Your task to perform on an android device: search for starred emails in the gmail app Image 0: 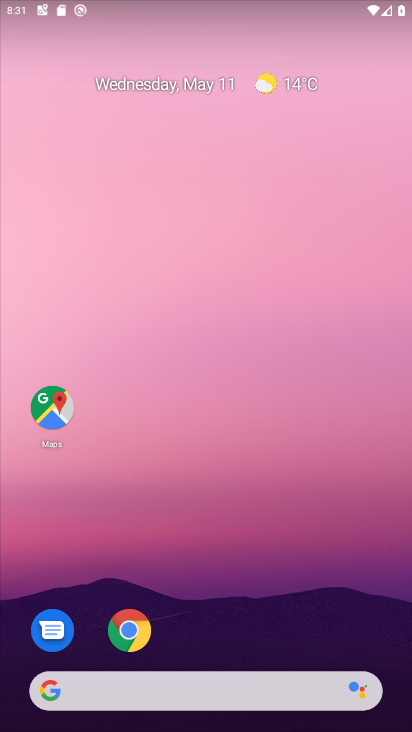
Step 0: press home button
Your task to perform on an android device: search for starred emails in the gmail app Image 1: 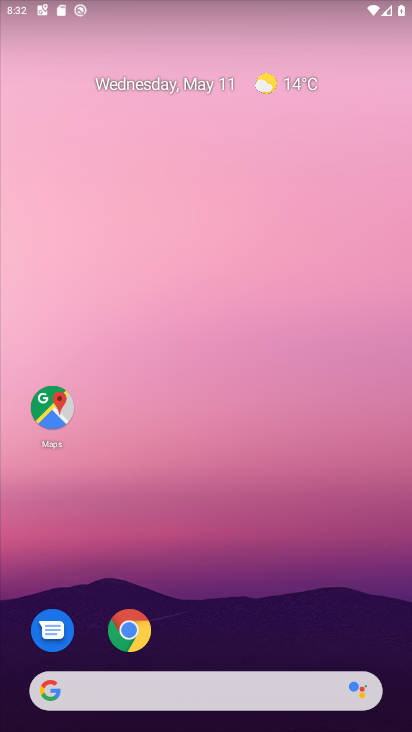
Step 1: drag from (0, 644) to (211, 200)
Your task to perform on an android device: search for starred emails in the gmail app Image 2: 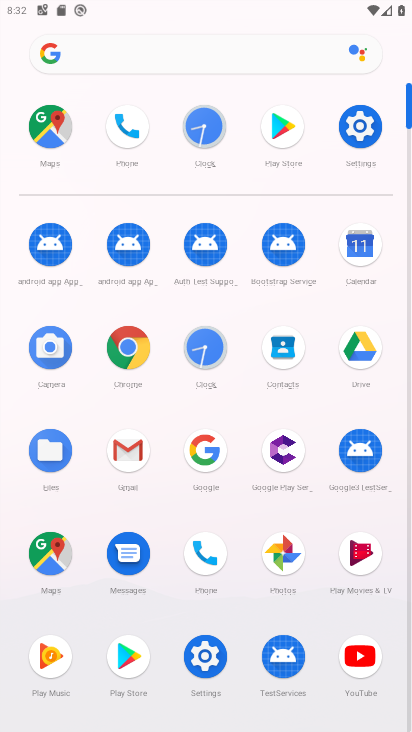
Step 2: click (123, 448)
Your task to perform on an android device: search for starred emails in the gmail app Image 3: 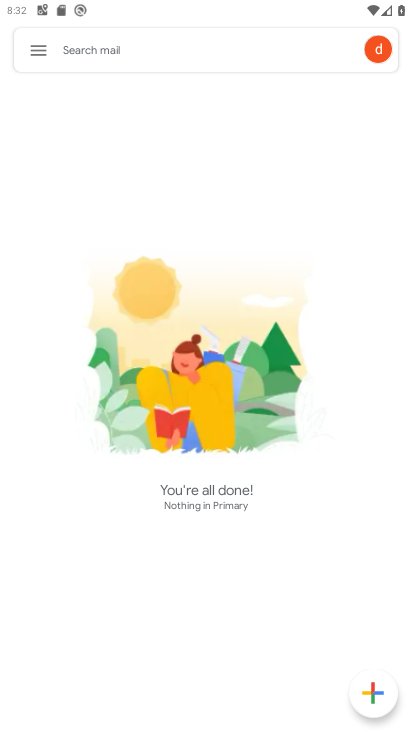
Step 3: click (33, 49)
Your task to perform on an android device: search for starred emails in the gmail app Image 4: 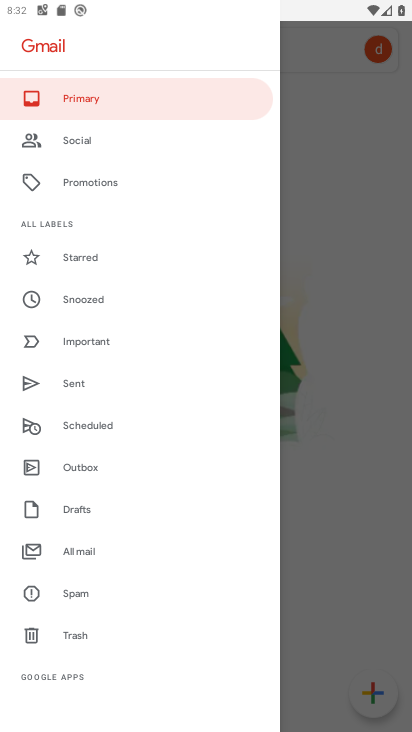
Step 4: drag from (132, 159) to (122, 598)
Your task to perform on an android device: search for starred emails in the gmail app Image 5: 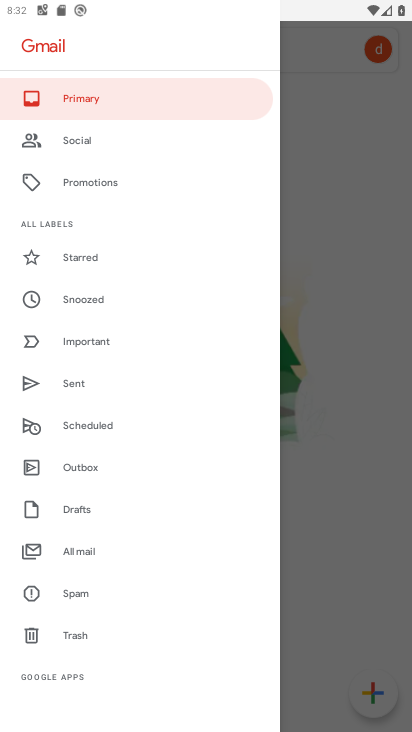
Step 5: drag from (95, 632) to (163, 165)
Your task to perform on an android device: search for starred emails in the gmail app Image 6: 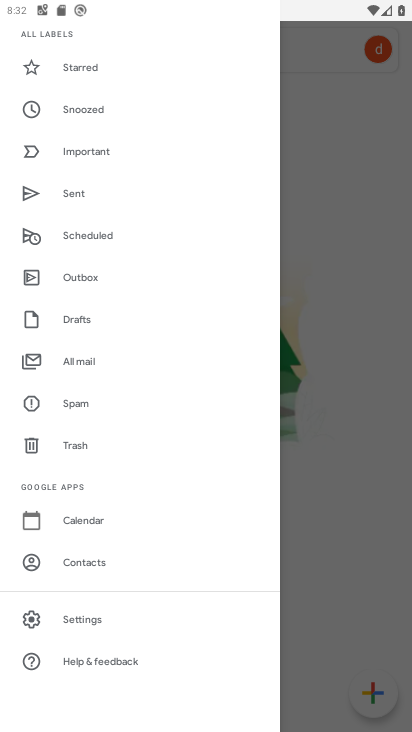
Step 6: click (123, 377)
Your task to perform on an android device: search for starred emails in the gmail app Image 7: 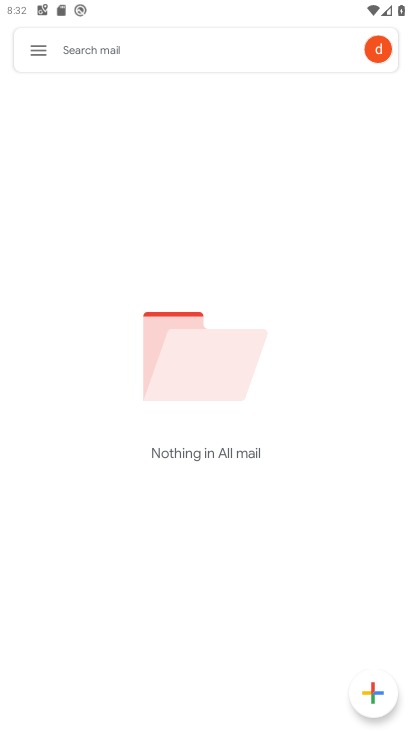
Step 7: task complete